Your task to perform on an android device: Open settings Image 0: 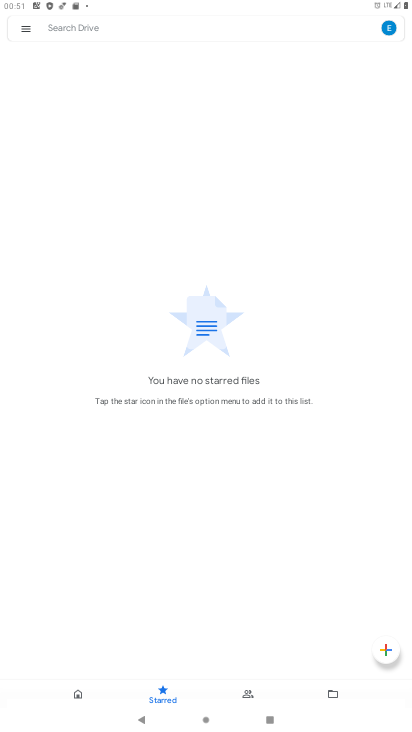
Step 0: press home button
Your task to perform on an android device: Open settings Image 1: 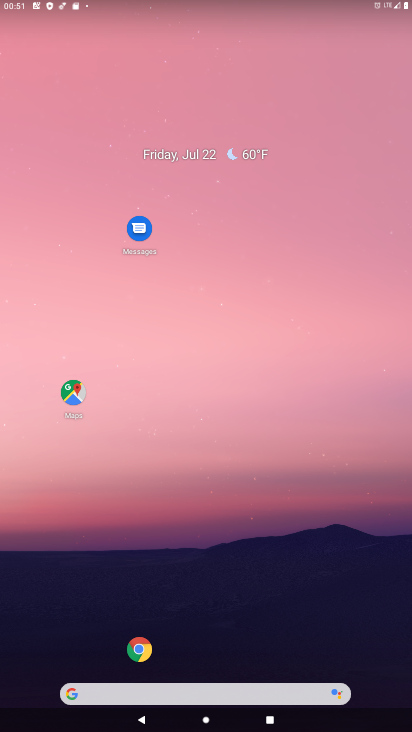
Step 1: drag from (42, 650) to (188, 99)
Your task to perform on an android device: Open settings Image 2: 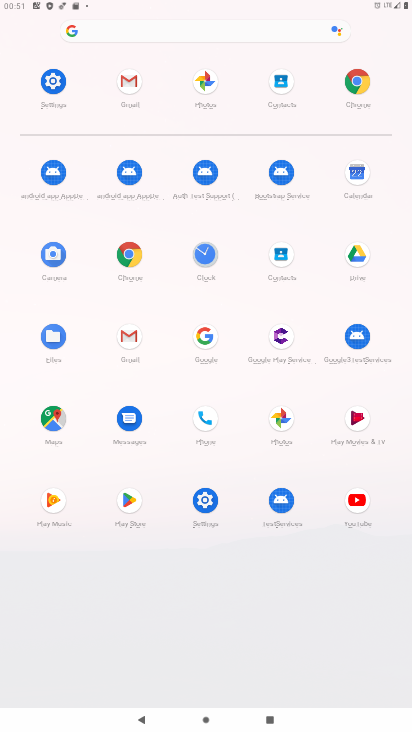
Step 2: click (207, 503)
Your task to perform on an android device: Open settings Image 3: 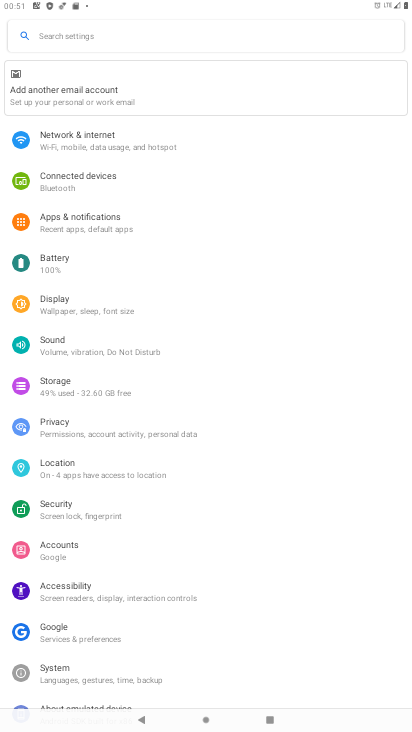
Step 3: task complete